Your task to perform on an android device: Show me popular videos on Youtube Image 0: 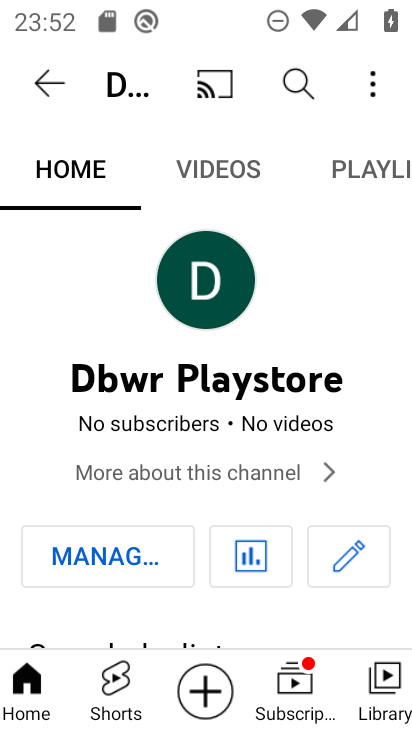
Step 0: press home button
Your task to perform on an android device: Show me popular videos on Youtube Image 1: 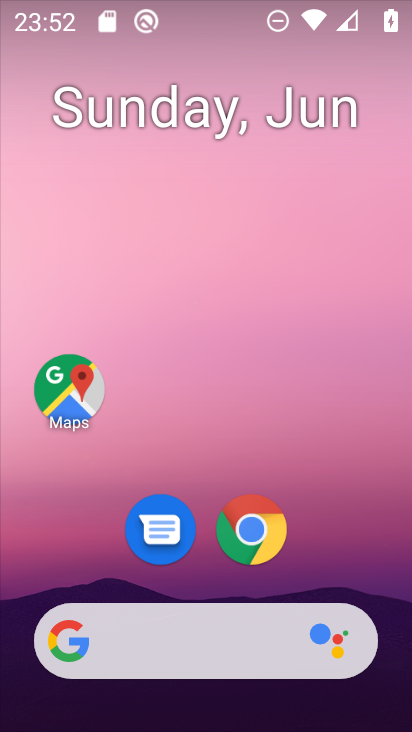
Step 1: drag from (403, 641) to (352, 90)
Your task to perform on an android device: Show me popular videos on Youtube Image 2: 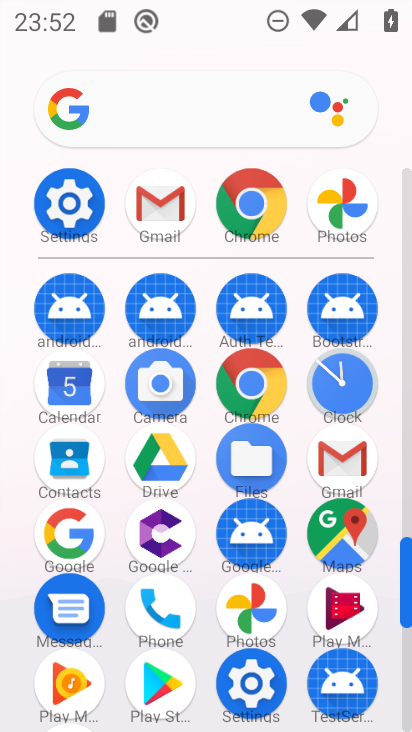
Step 2: click (407, 700)
Your task to perform on an android device: Show me popular videos on Youtube Image 3: 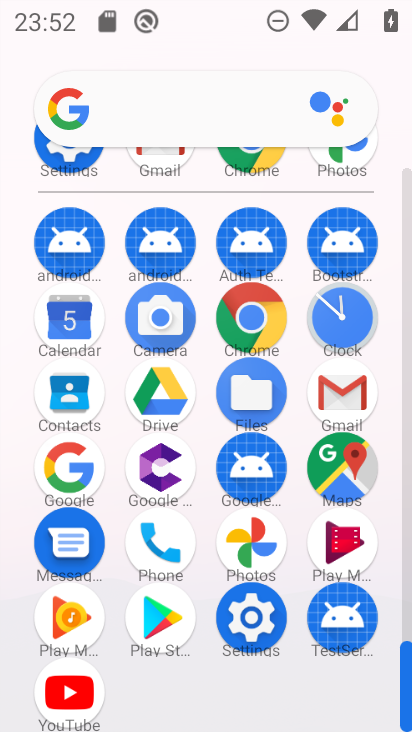
Step 3: click (70, 695)
Your task to perform on an android device: Show me popular videos on Youtube Image 4: 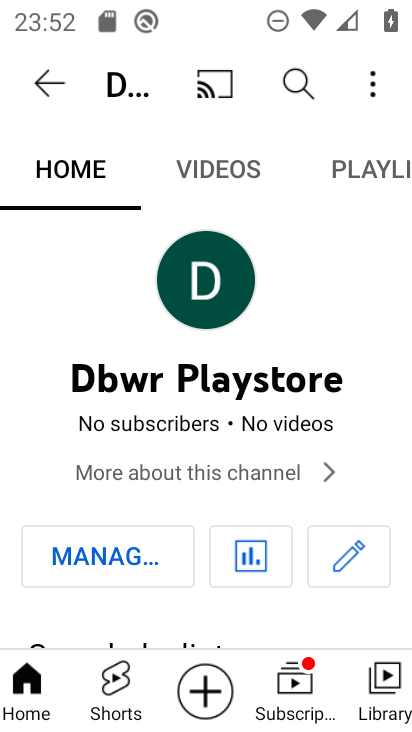
Step 4: click (28, 676)
Your task to perform on an android device: Show me popular videos on Youtube Image 5: 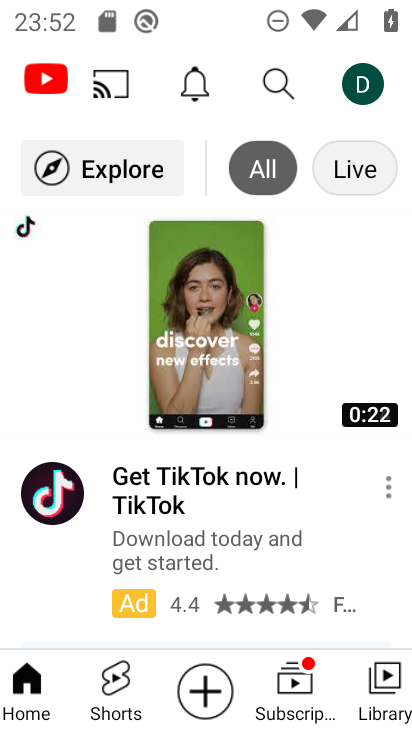
Step 5: click (83, 163)
Your task to perform on an android device: Show me popular videos on Youtube Image 6: 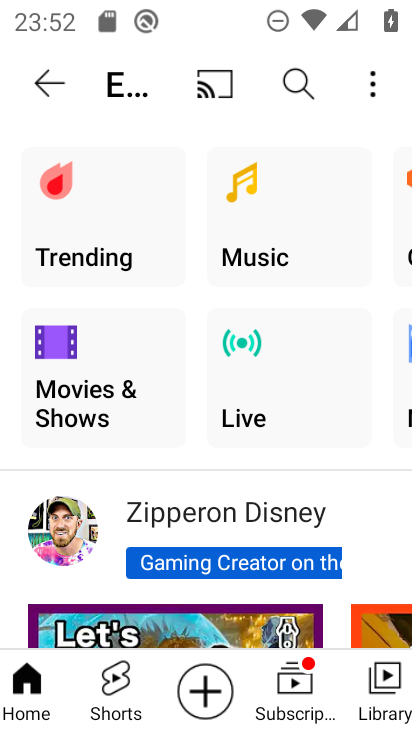
Step 6: click (76, 227)
Your task to perform on an android device: Show me popular videos on Youtube Image 7: 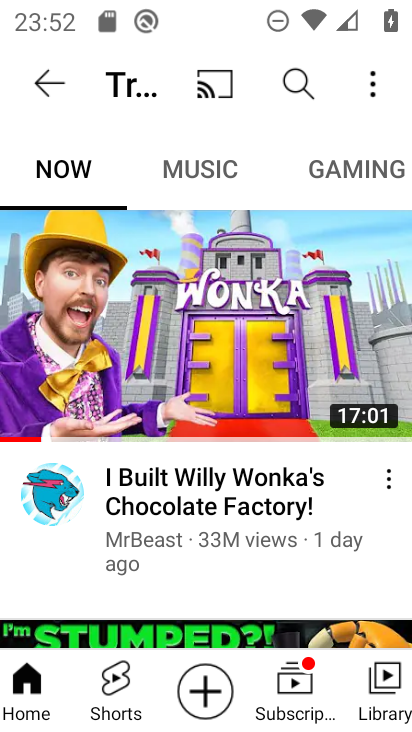
Step 7: task complete